Your task to perform on an android device: When is my next meeting? Image 0: 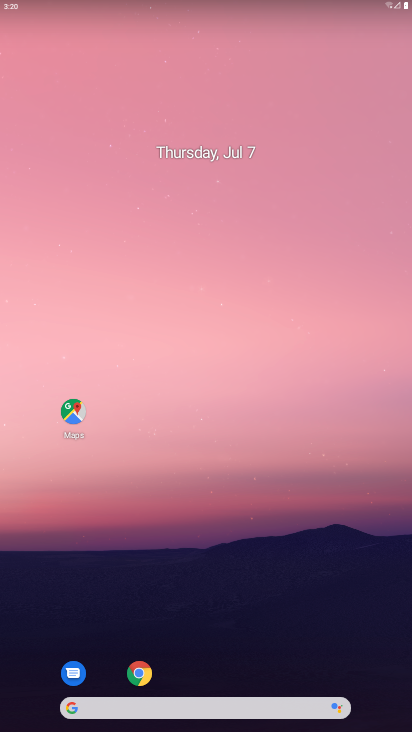
Step 0: drag from (191, 708) to (274, 134)
Your task to perform on an android device: When is my next meeting? Image 1: 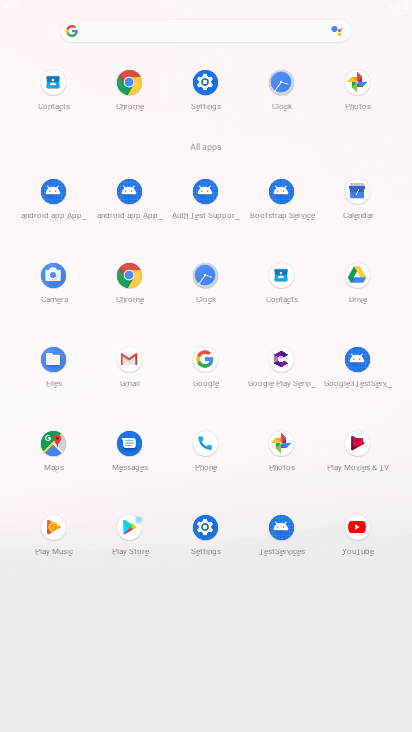
Step 1: click (356, 199)
Your task to perform on an android device: When is my next meeting? Image 2: 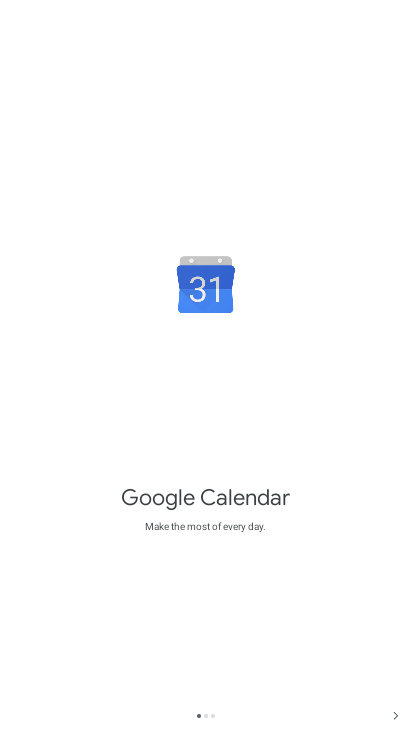
Step 2: click (394, 710)
Your task to perform on an android device: When is my next meeting? Image 3: 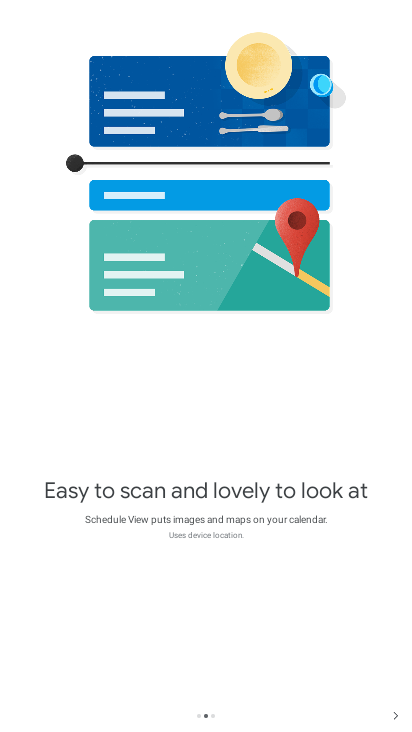
Step 3: click (395, 716)
Your task to perform on an android device: When is my next meeting? Image 4: 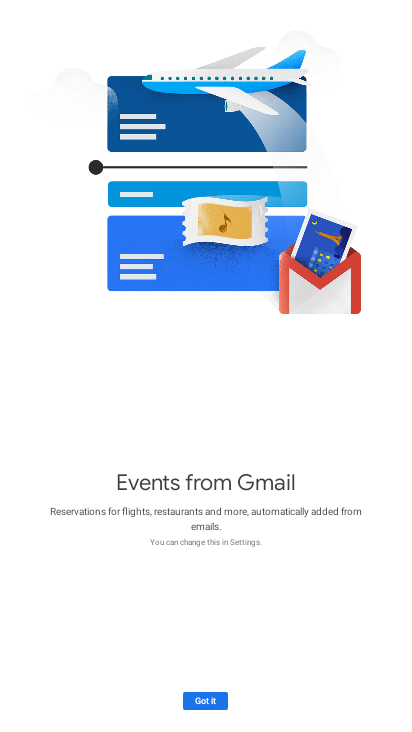
Step 4: click (207, 697)
Your task to perform on an android device: When is my next meeting? Image 5: 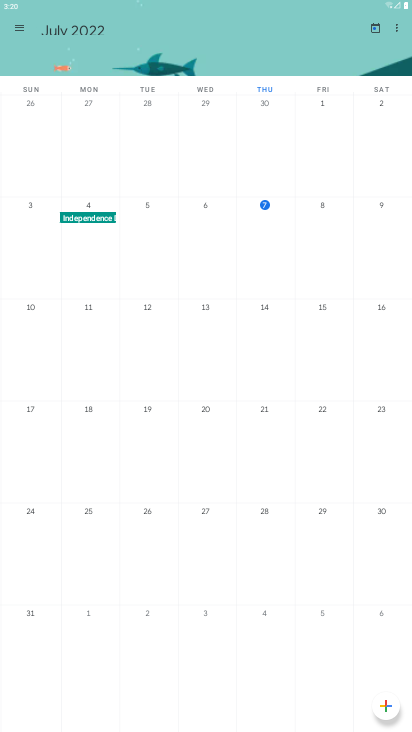
Step 5: click (24, 33)
Your task to perform on an android device: When is my next meeting? Image 6: 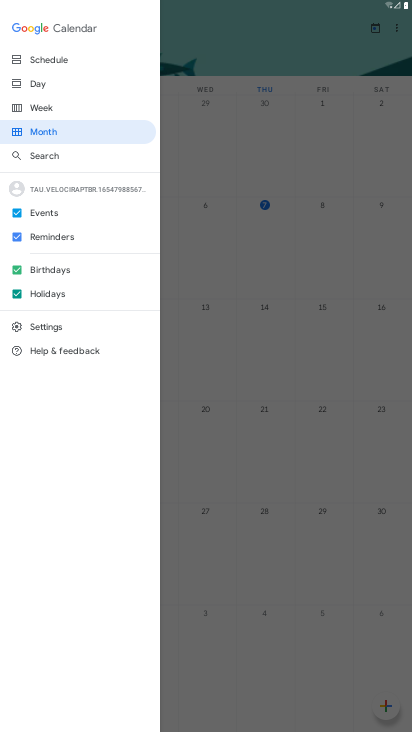
Step 6: click (61, 64)
Your task to perform on an android device: When is my next meeting? Image 7: 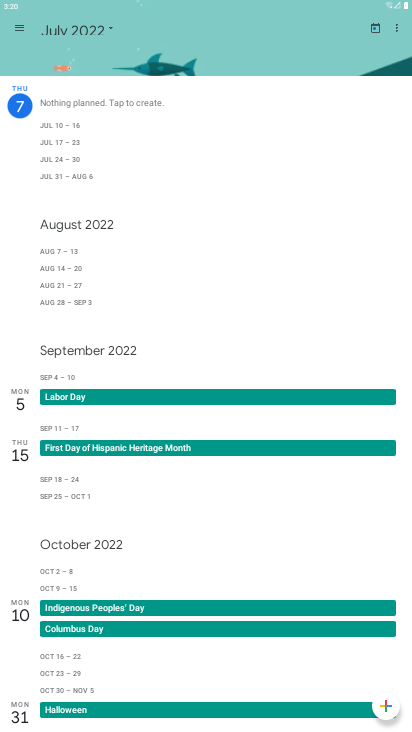
Step 7: task complete